Your task to perform on an android device: turn on notifications settings in the gmail app Image 0: 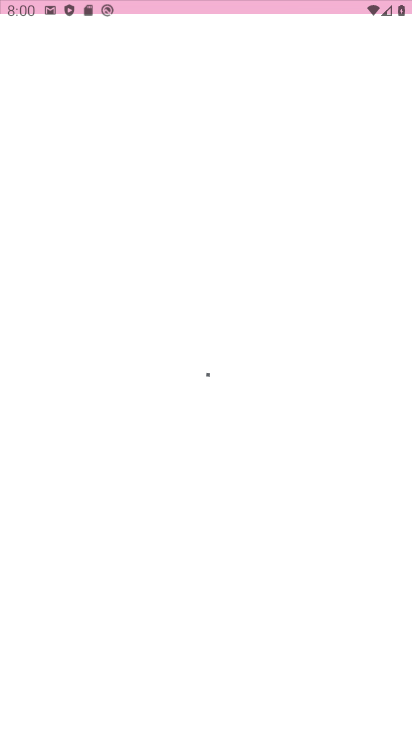
Step 0: click (246, 21)
Your task to perform on an android device: turn on notifications settings in the gmail app Image 1: 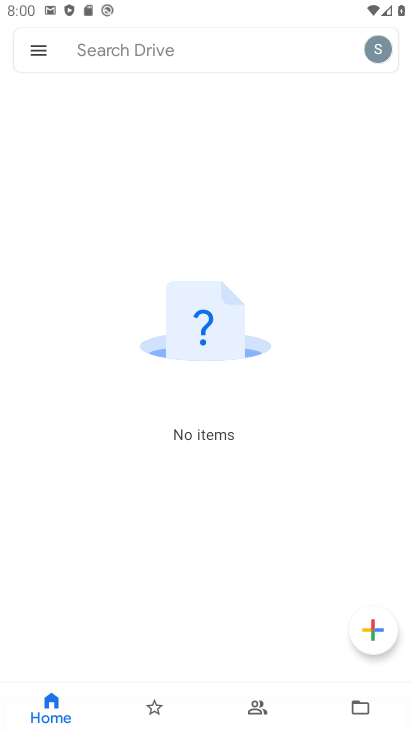
Step 1: press home button
Your task to perform on an android device: turn on notifications settings in the gmail app Image 2: 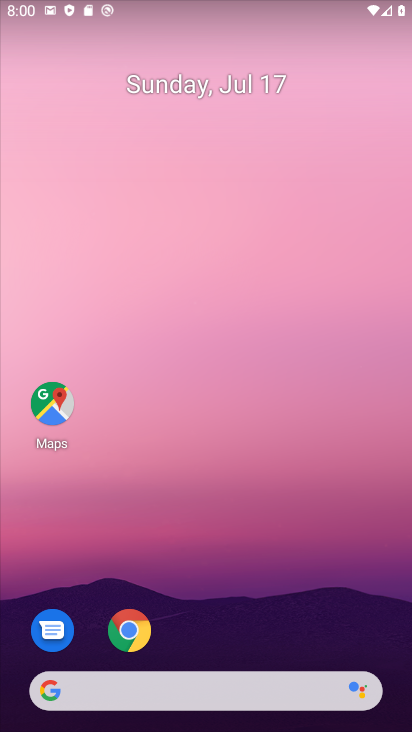
Step 2: drag from (194, 674) to (270, 66)
Your task to perform on an android device: turn on notifications settings in the gmail app Image 3: 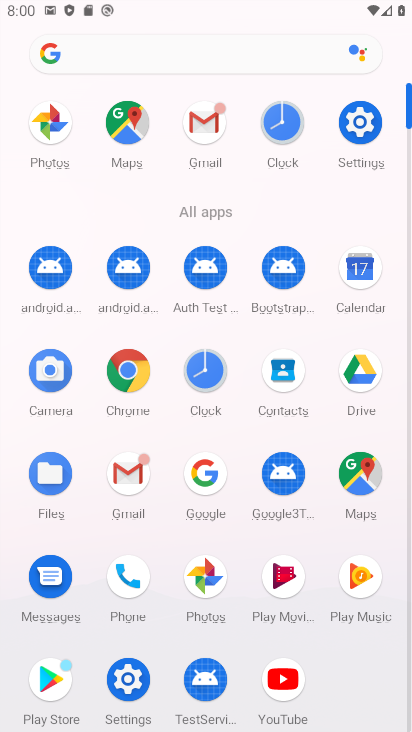
Step 3: click (128, 473)
Your task to perform on an android device: turn on notifications settings in the gmail app Image 4: 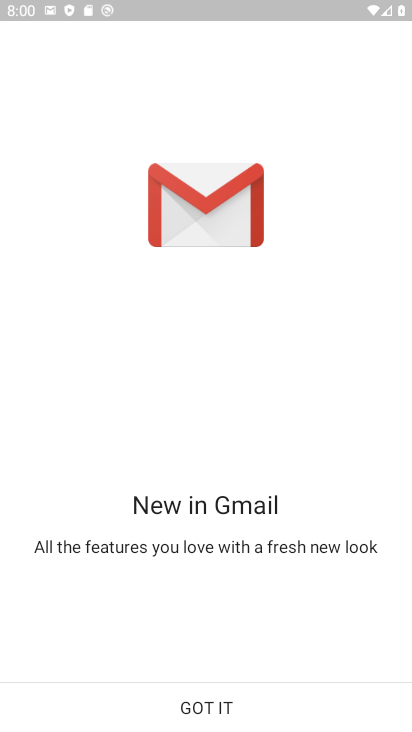
Step 4: click (230, 705)
Your task to perform on an android device: turn on notifications settings in the gmail app Image 5: 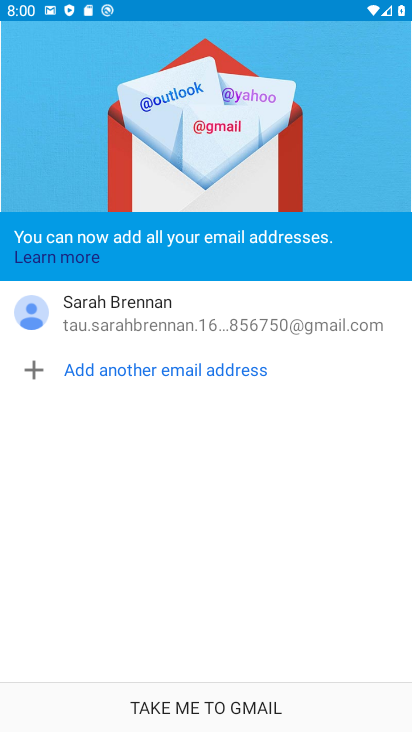
Step 5: click (211, 708)
Your task to perform on an android device: turn on notifications settings in the gmail app Image 6: 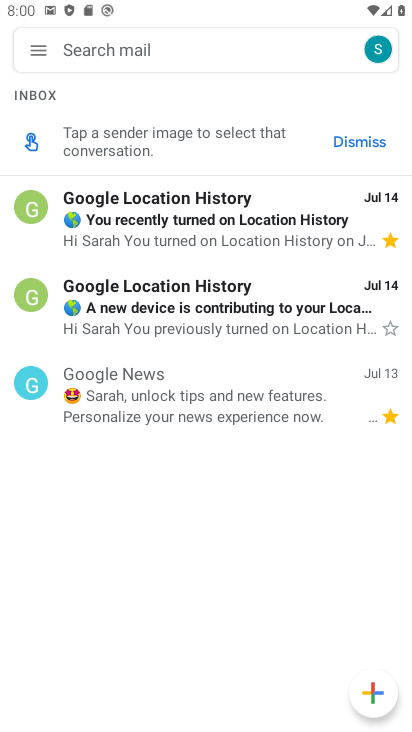
Step 6: click (35, 43)
Your task to perform on an android device: turn on notifications settings in the gmail app Image 7: 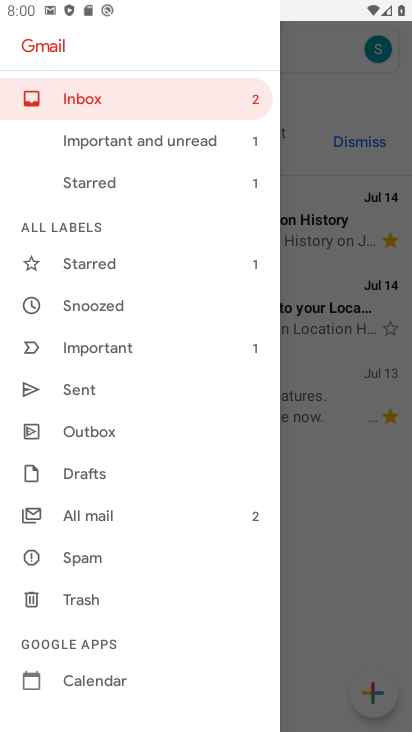
Step 7: drag from (118, 583) to (128, 120)
Your task to perform on an android device: turn on notifications settings in the gmail app Image 8: 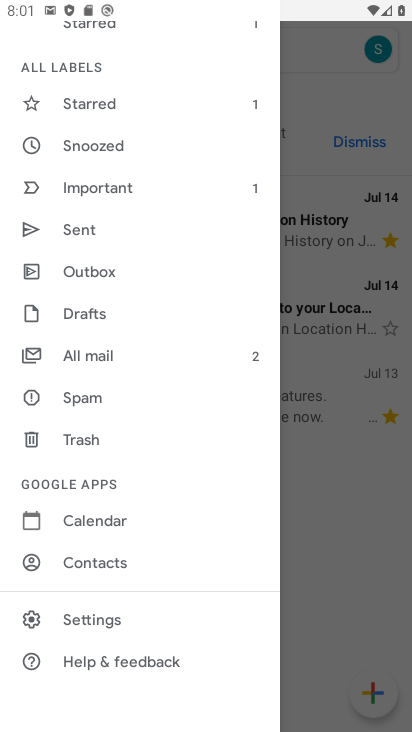
Step 8: click (98, 625)
Your task to perform on an android device: turn on notifications settings in the gmail app Image 9: 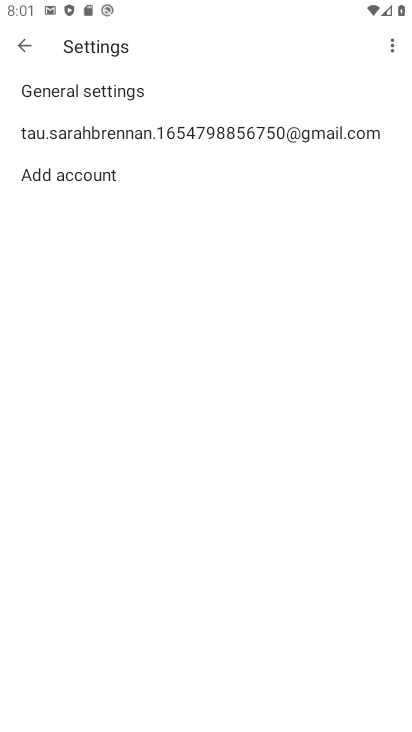
Step 9: click (93, 86)
Your task to perform on an android device: turn on notifications settings in the gmail app Image 10: 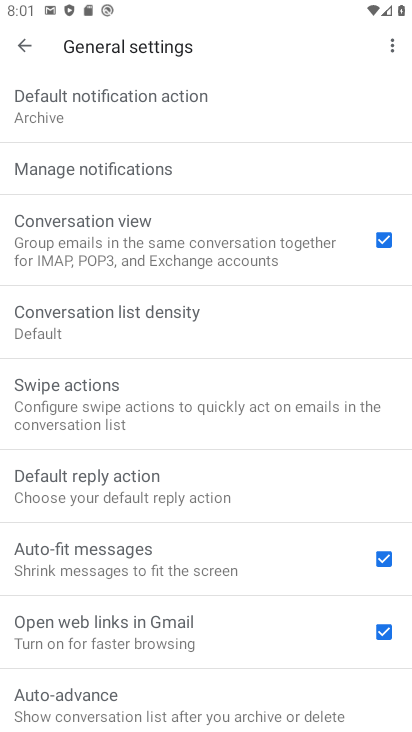
Step 10: click (93, 175)
Your task to perform on an android device: turn on notifications settings in the gmail app Image 11: 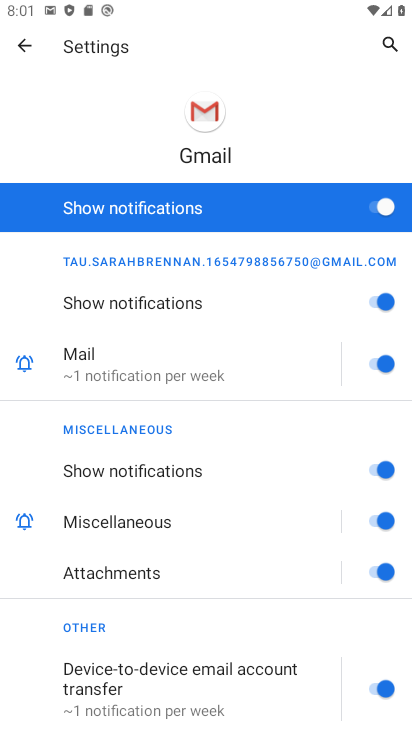
Step 11: task complete